Your task to perform on an android device: turn on location history Image 0: 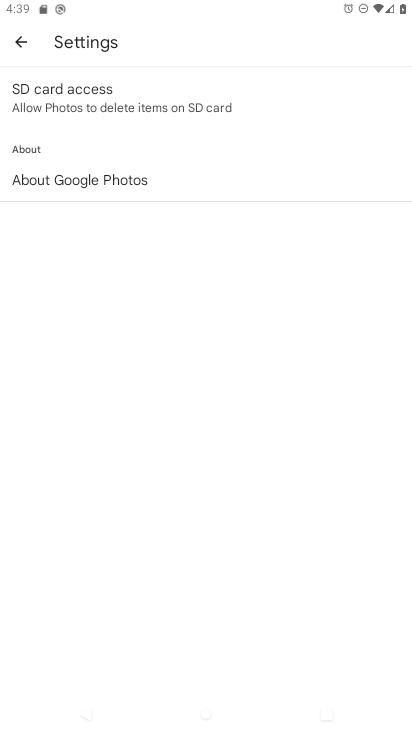
Step 0: press home button
Your task to perform on an android device: turn on location history Image 1: 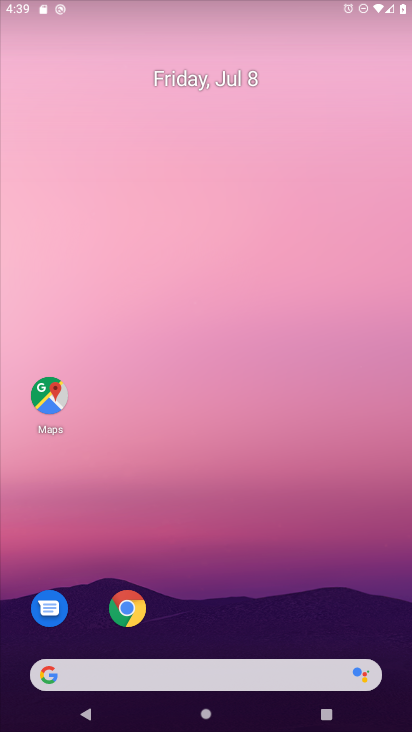
Step 1: drag from (307, 611) to (293, 111)
Your task to perform on an android device: turn on location history Image 2: 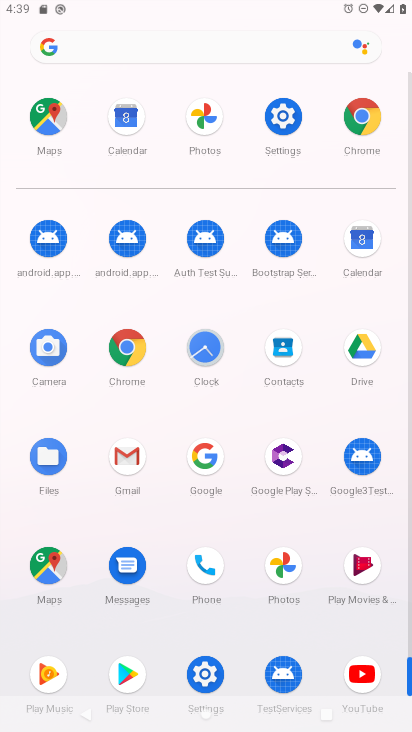
Step 2: click (289, 124)
Your task to perform on an android device: turn on location history Image 3: 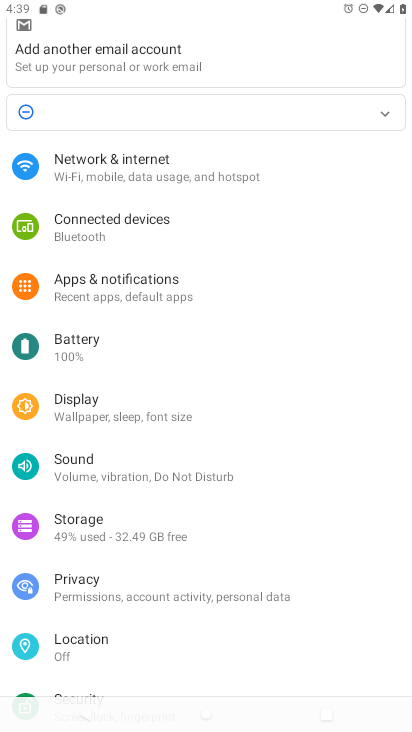
Step 3: click (99, 643)
Your task to perform on an android device: turn on location history Image 4: 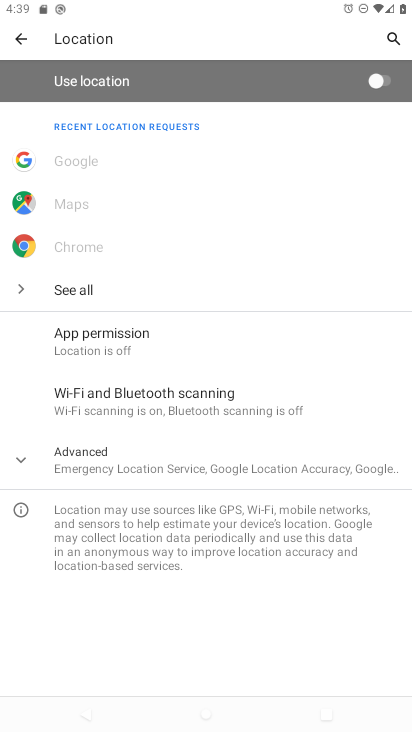
Step 4: click (145, 455)
Your task to perform on an android device: turn on location history Image 5: 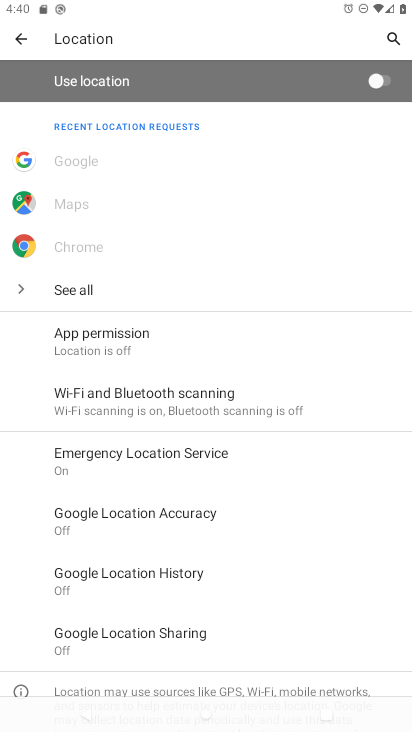
Step 5: click (205, 577)
Your task to perform on an android device: turn on location history Image 6: 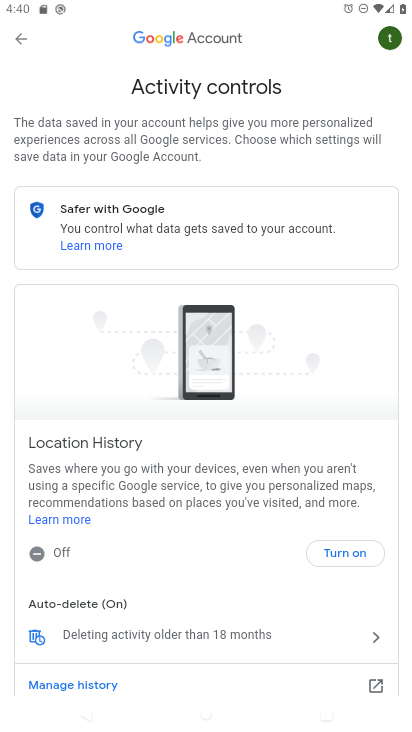
Step 6: click (340, 555)
Your task to perform on an android device: turn on location history Image 7: 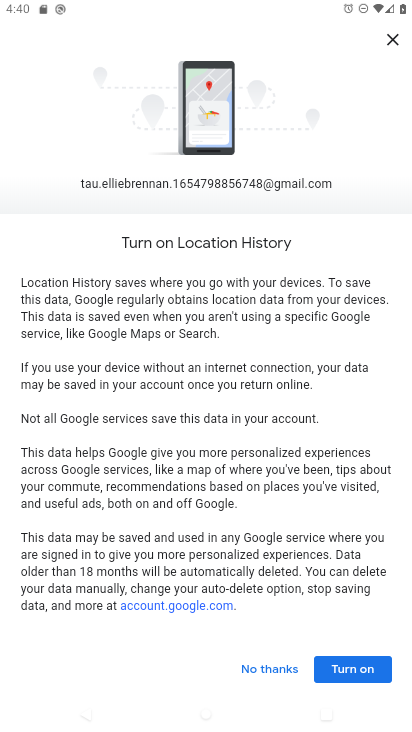
Step 7: click (357, 671)
Your task to perform on an android device: turn on location history Image 8: 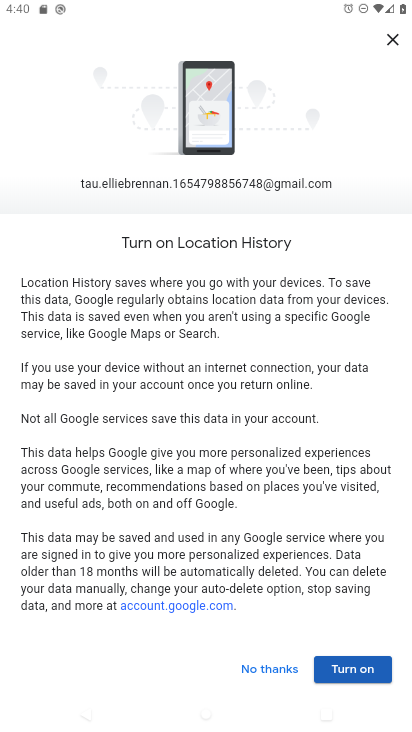
Step 8: click (377, 669)
Your task to perform on an android device: turn on location history Image 9: 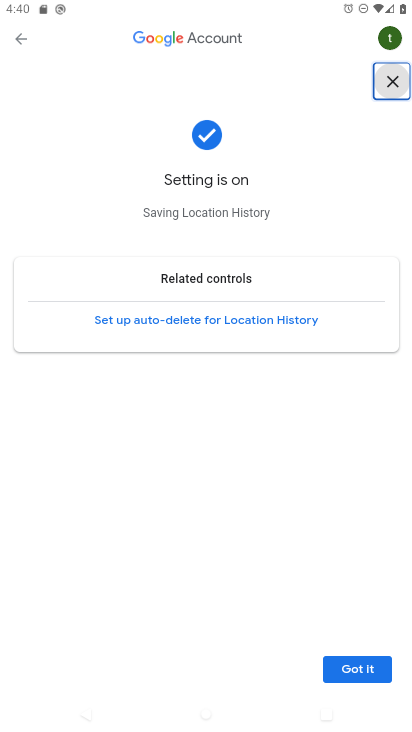
Step 9: task complete